Your task to perform on an android device: change your default location settings in chrome Image 0: 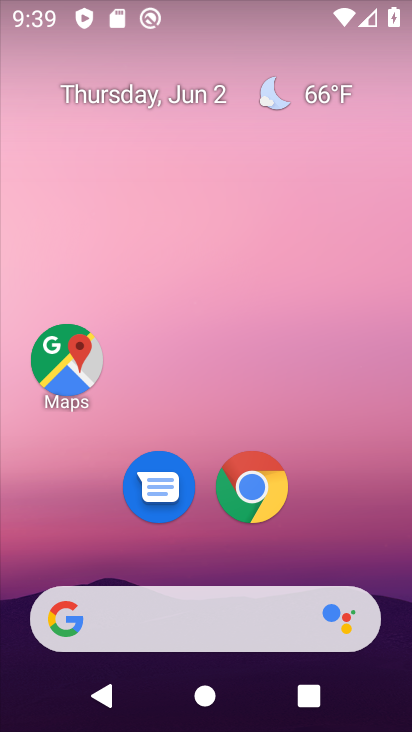
Step 0: click (258, 503)
Your task to perform on an android device: change your default location settings in chrome Image 1: 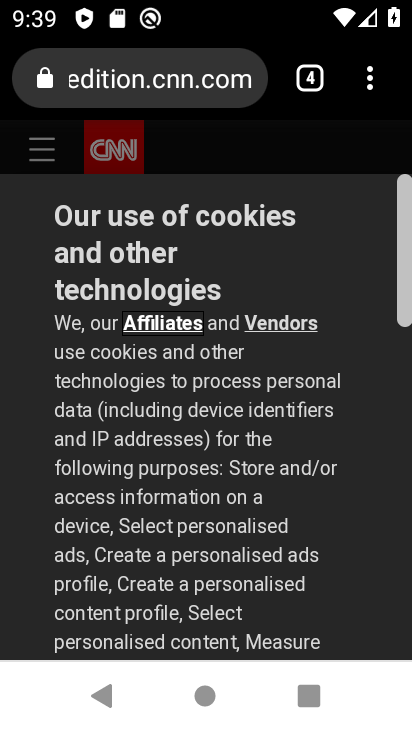
Step 1: click (369, 88)
Your task to perform on an android device: change your default location settings in chrome Image 2: 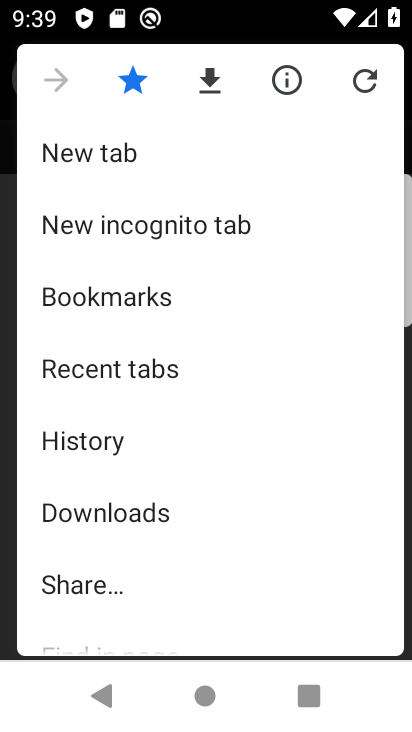
Step 2: drag from (129, 599) to (130, 208)
Your task to perform on an android device: change your default location settings in chrome Image 3: 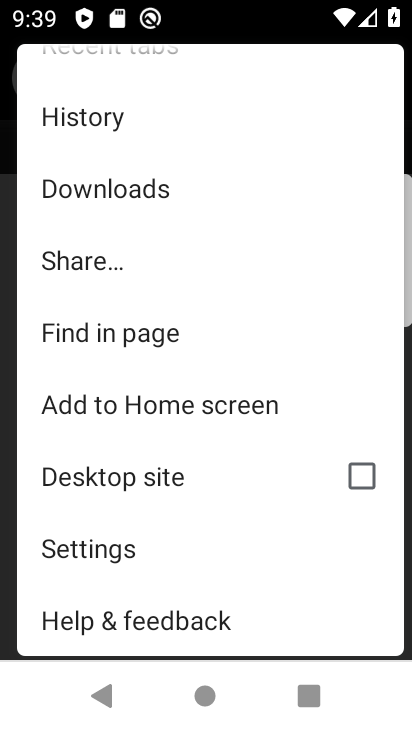
Step 3: click (98, 547)
Your task to perform on an android device: change your default location settings in chrome Image 4: 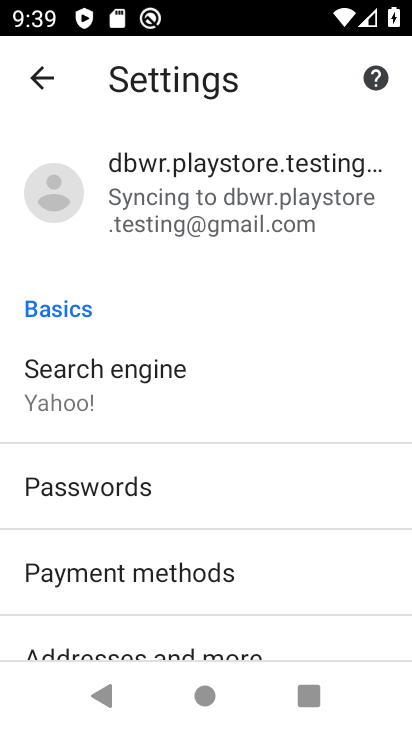
Step 4: drag from (113, 630) to (112, 265)
Your task to perform on an android device: change your default location settings in chrome Image 5: 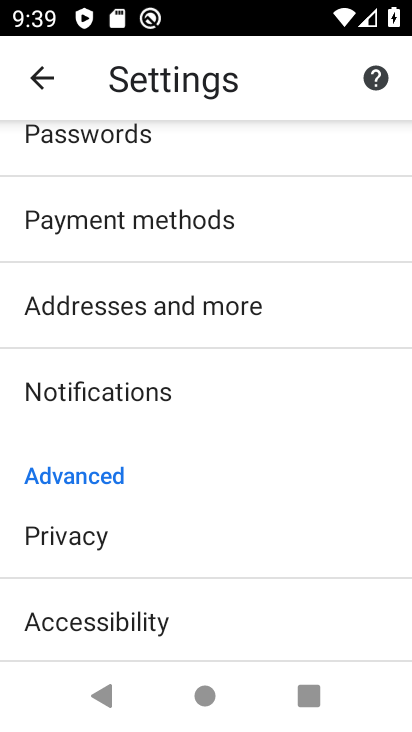
Step 5: drag from (110, 634) to (117, 247)
Your task to perform on an android device: change your default location settings in chrome Image 6: 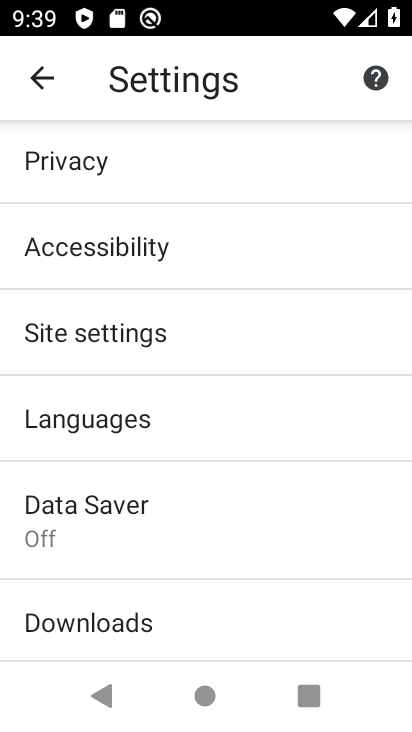
Step 6: click (98, 325)
Your task to perform on an android device: change your default location settings in chrome Image 7: 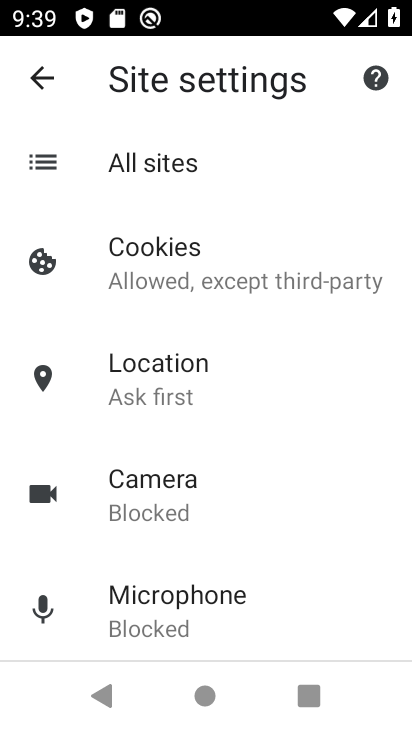
Step 7: click (153, 379)
Your task to perform on an android device: change your default location settings in chrome Image 8: 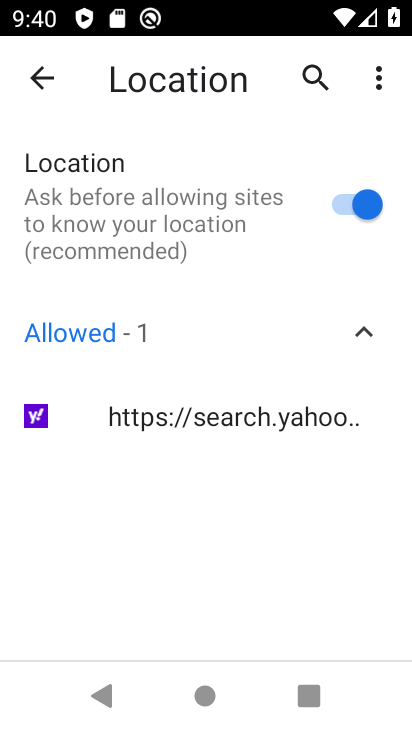
Step 8: click (340, 202)
Your task to perform on an android device: change your default location settings in chrome Image 9: 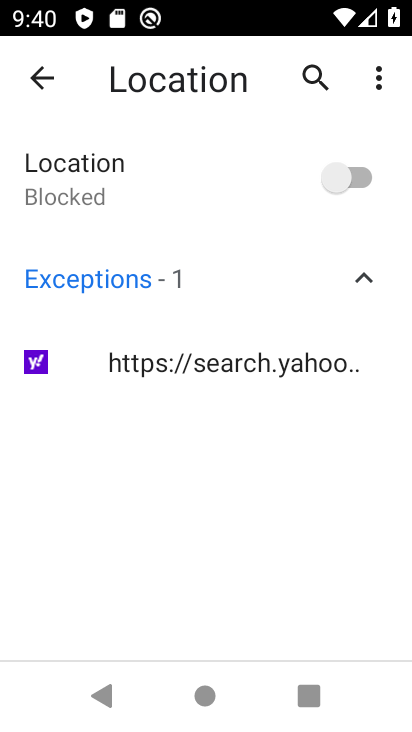
Step 9: task complete